Your task to perform on an android device: check data usage Image 0: 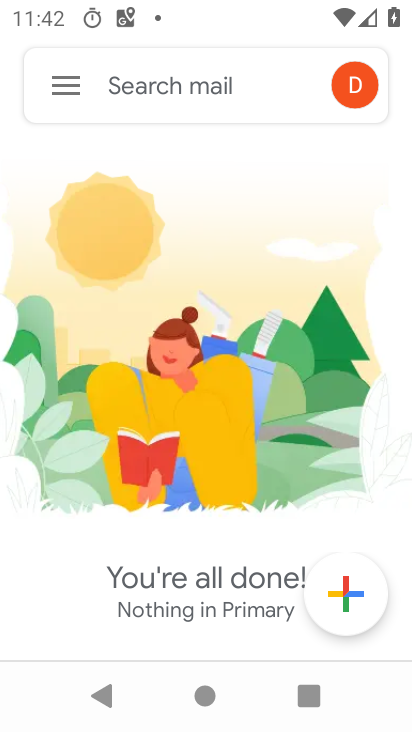
Step 0: press home button
Your task to perform on an android device: check data usage Image 1: 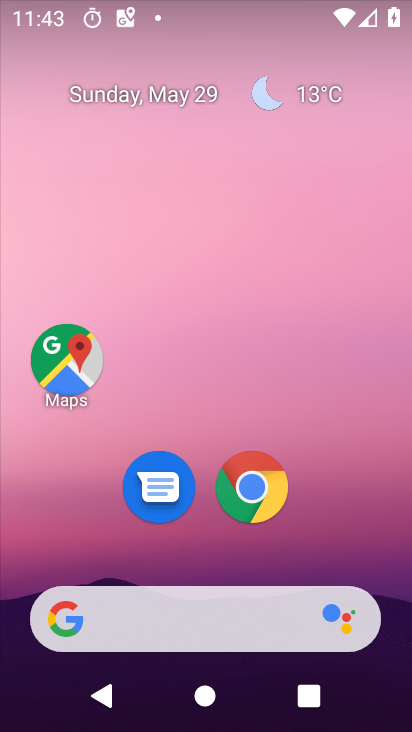
Step 1: drag from (389, 649) to (267, 62)
Your task to perform on an android device: check data usage Image 2: 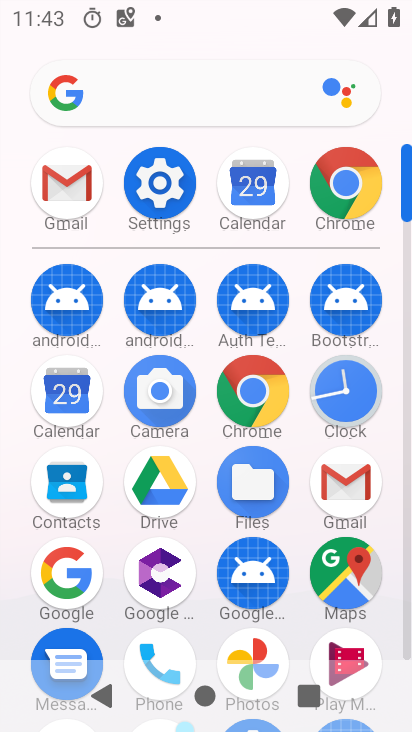
Step 2: click (164, 184)
Your task to perform on an android device: check data usage Image 3: 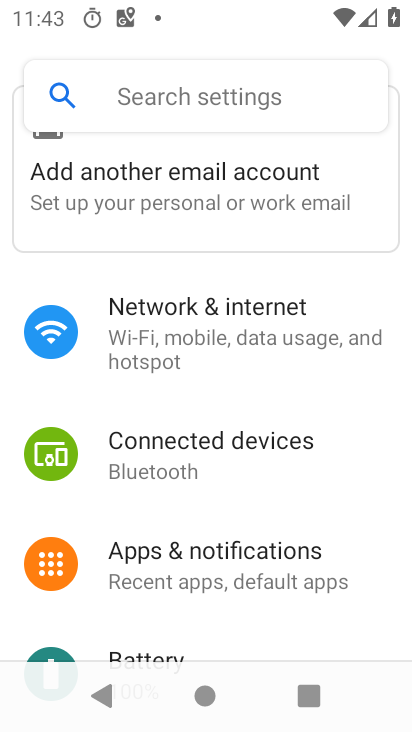
Step 3: click (217, 318)
Your task to perform on an android device: check data usage Image 4: 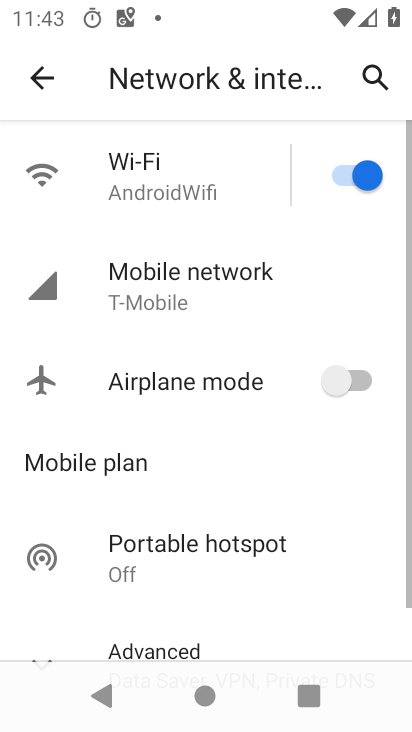
Step 4: click (186, 277)
Your task to perform on an android device: check data usage Image 5: 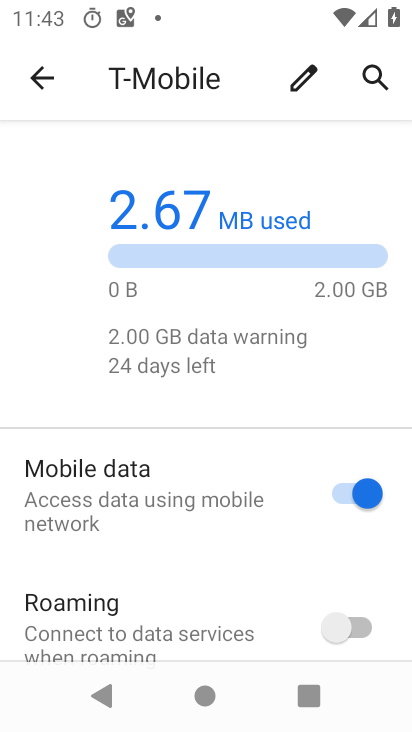
Step 5: task complete